Your task to perform on an android device: Open notification settings Image 0: 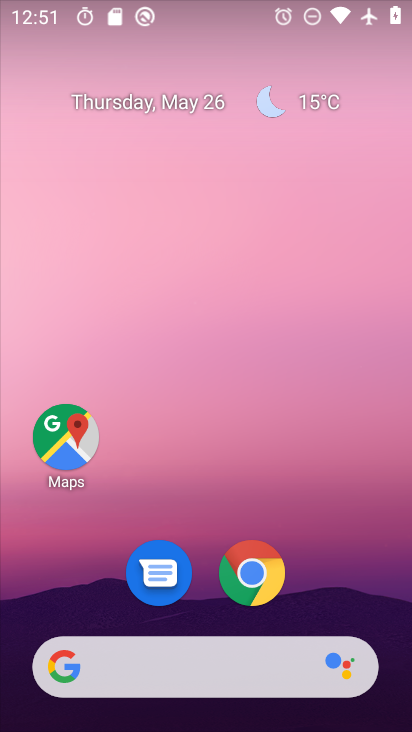
Step 0: drag from (349, 593) to (322, 23)
Your task to perform on an android device: Open notification settings Image 1: 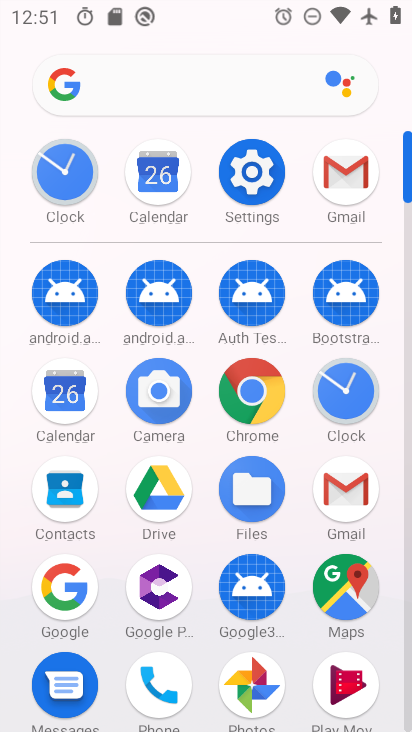
Step 1: click (247, 172)
Your task to perform on an android device: Open notification settings Image 2: 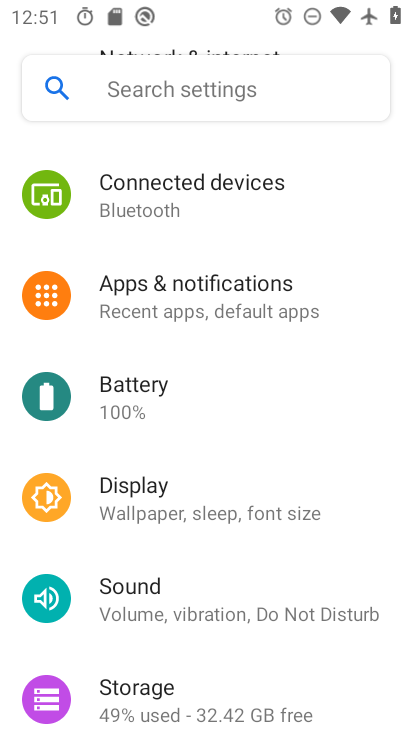
Step 2: click (217, 294)
Your task to perform on an android device: Open notification settings Image 3: 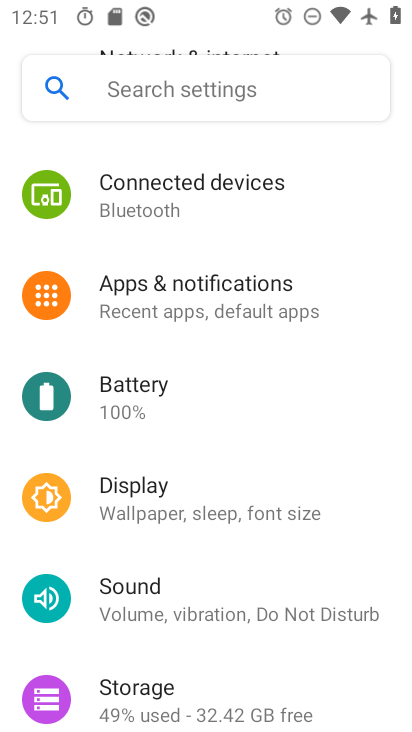
Step 3: click (176, 302)
Your task to perform on an android device: Open notification settings Image 4: 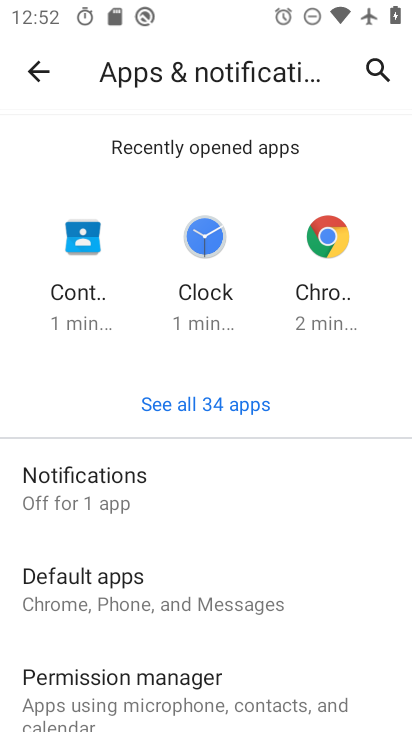
Step 4: task complete